Your task to perform on an android device: Go to notification settings Image 0: 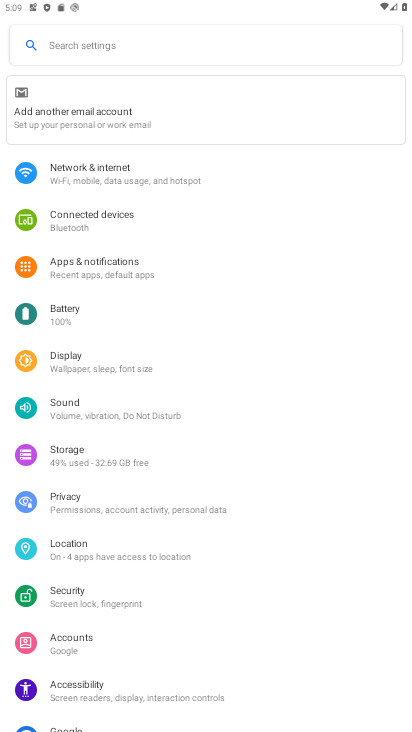
Step 0: click (92, 264)
Your task to perform on an android device: Go to notification settings Image 1: 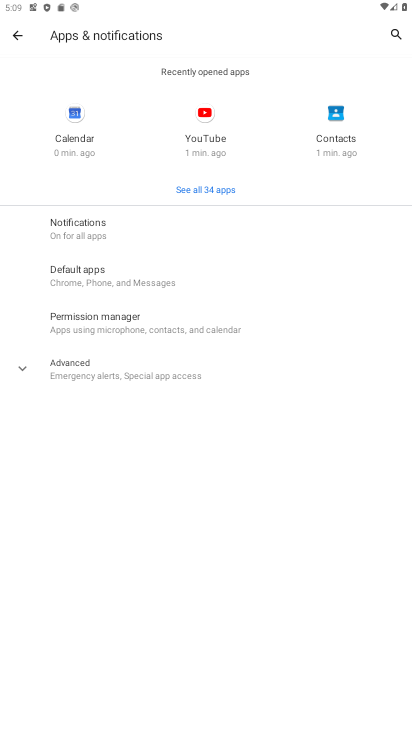
Step 1: click (74, 223)
Your task to perform on an android device: Go to notification settings Image 2: 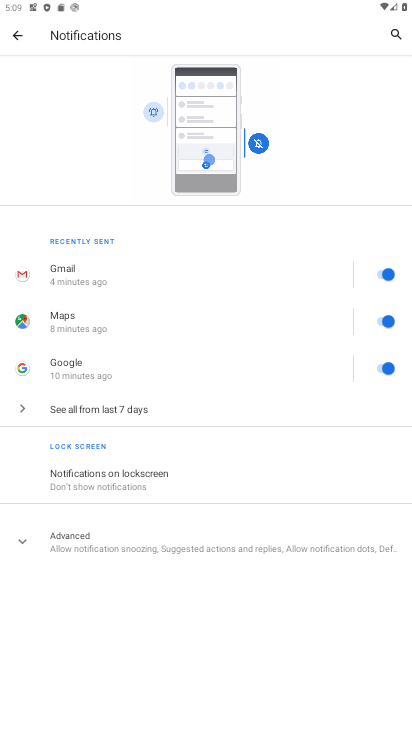
Step 2: click (18, 540)
Your task to perform on an android device: Go to notification settings Image 3: 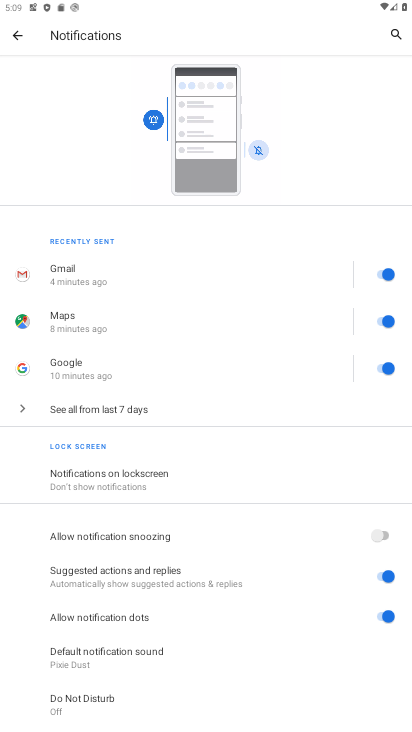
Step 3: task complete